Your task to perform on an android device: Toggle the flashlight Image 0: 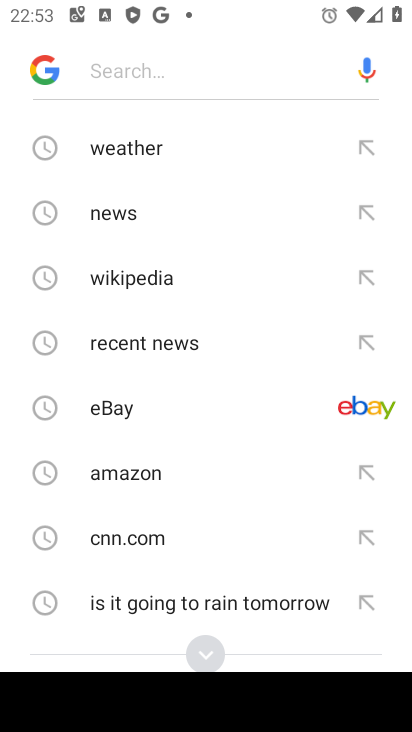
Step 0: press home button
Your task to perform on an android device: Toggle the flashlight Image 1: 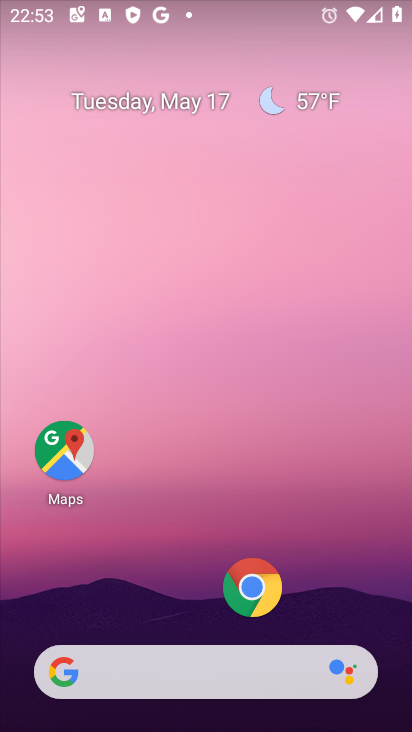
Step 1: drag from (195, 530) to (182, 235)
Your task to perform on an android device: Toggle the flashlight Image 2: 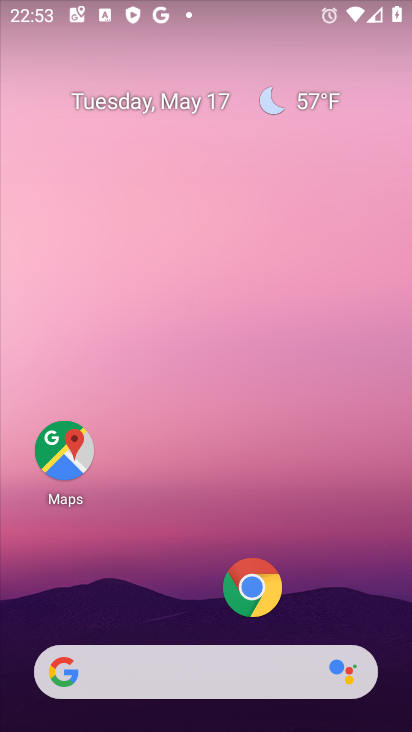
Step 2: drag from (187, 511) to (196, 183)
Your task to perform on an android device: Toggle the flashlight Image 3: 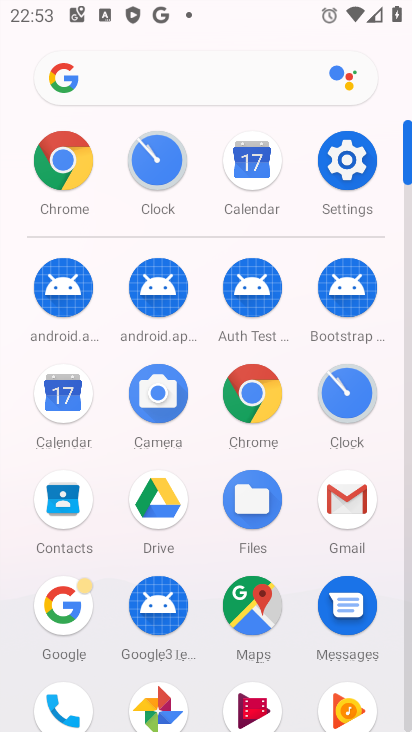
Step 3: click (355, 176)
Your task to perform on an android device: Toggle the flashlight Image 4: 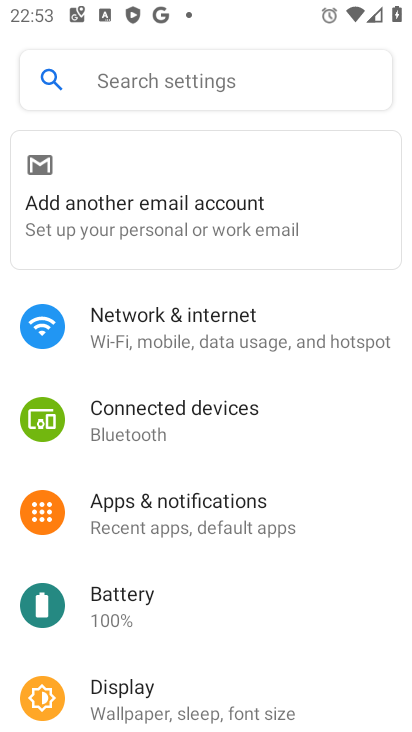
Step 4: task complete